Your task to perform on an android device: delete a single message in the gmail app Image 0: 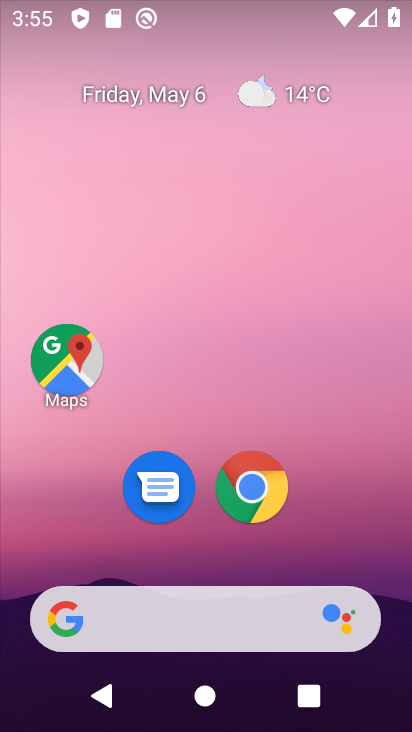
Step 0: drag from (95, 579) to (200, 97)
Your task to perform on an android device: delete a single message in the gmail app Image 1: 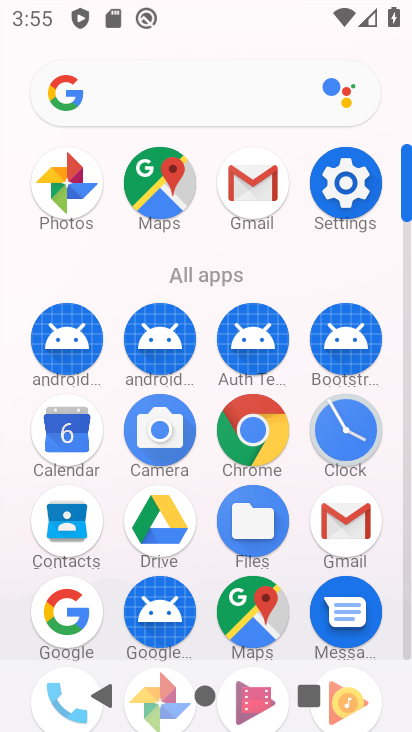
Step 1: click (337, 521)
Your task to perform on an android device: delete a single message in the gmail app Image 2: 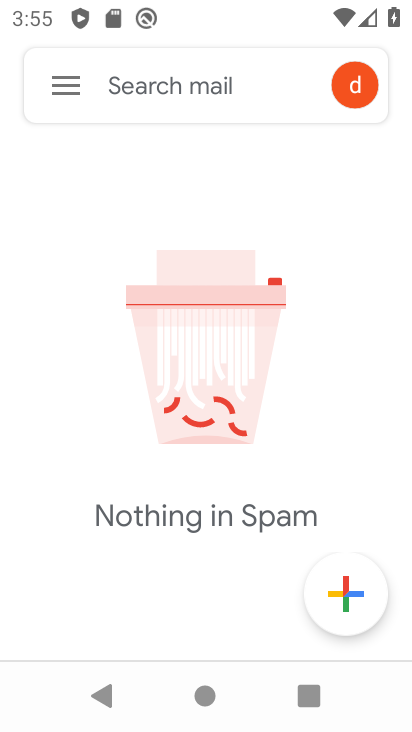
Step 2: click (52, 108)
Your task to perform on an android device: delete a single message in the gmail app Image 3: 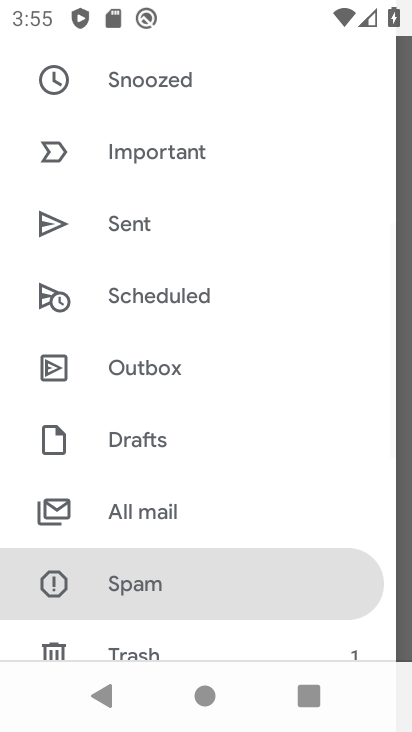
Step 3: click (178, 523)
Your task to perform on an android device: delete a single message in the gmail app Image 4: 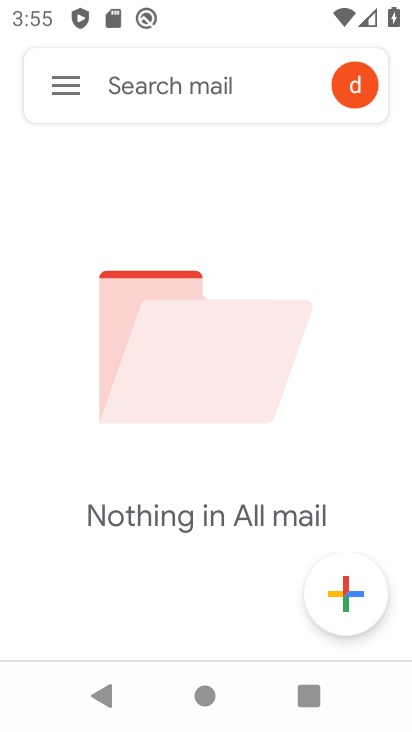
Step 4: task complete